Your task to perform on an android device: Open wifi settings Image 0: 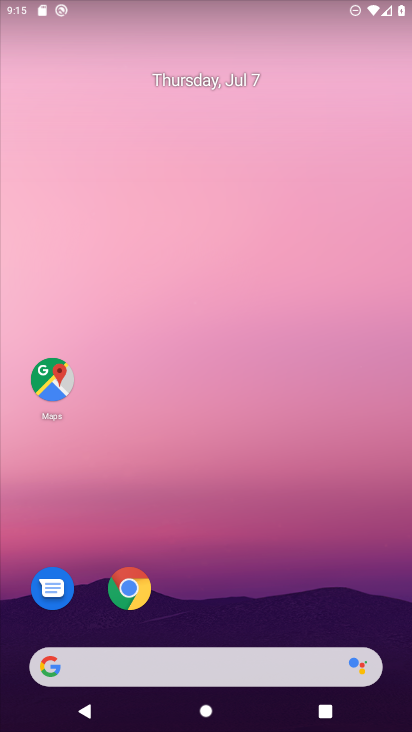
Step 0: drag from (206, 14) to (156, 535)
Your task to perform on an android device: Open wifi settings Image 1: 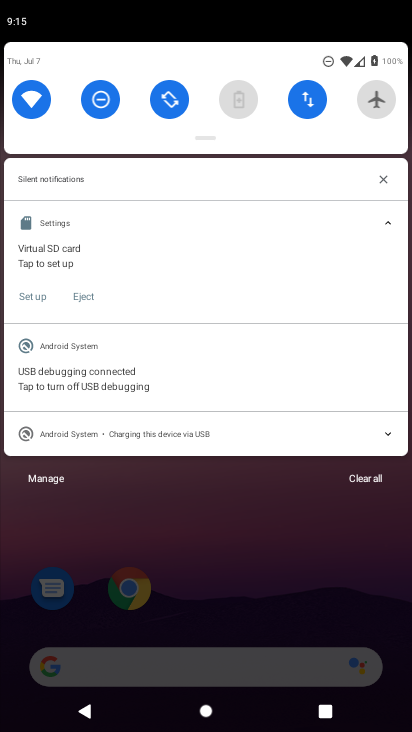
Step 1: click (32, 88)
Your task to perform on an android device: Open wifi settings Image 2: 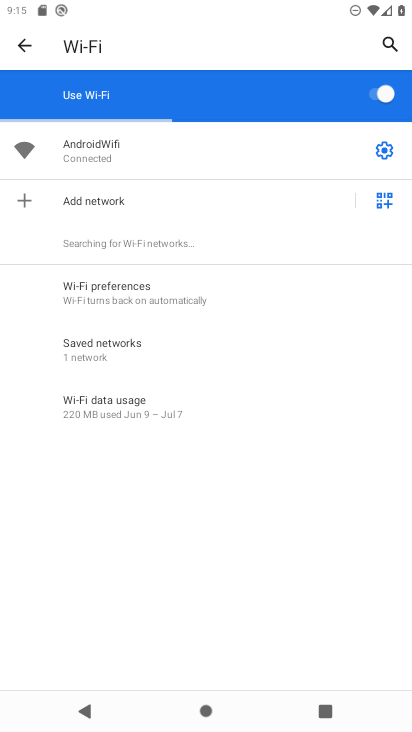
Step 2: task complete